Your task to perform on an android device: change the clock display to digital Image 0: 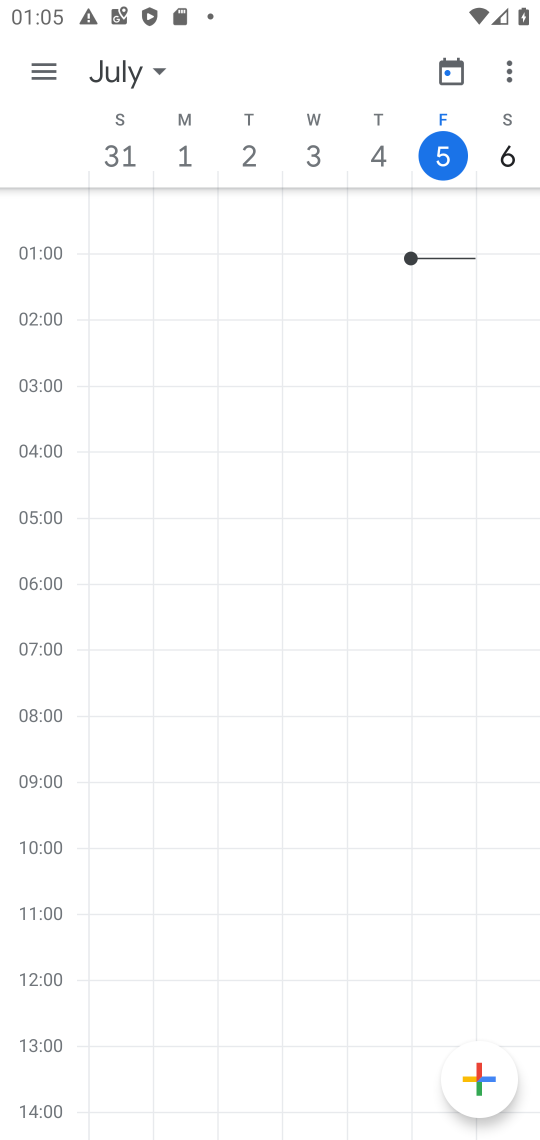
Step 0: press home button
Your task to perform on an android device: change the clock display to digital Image 1: 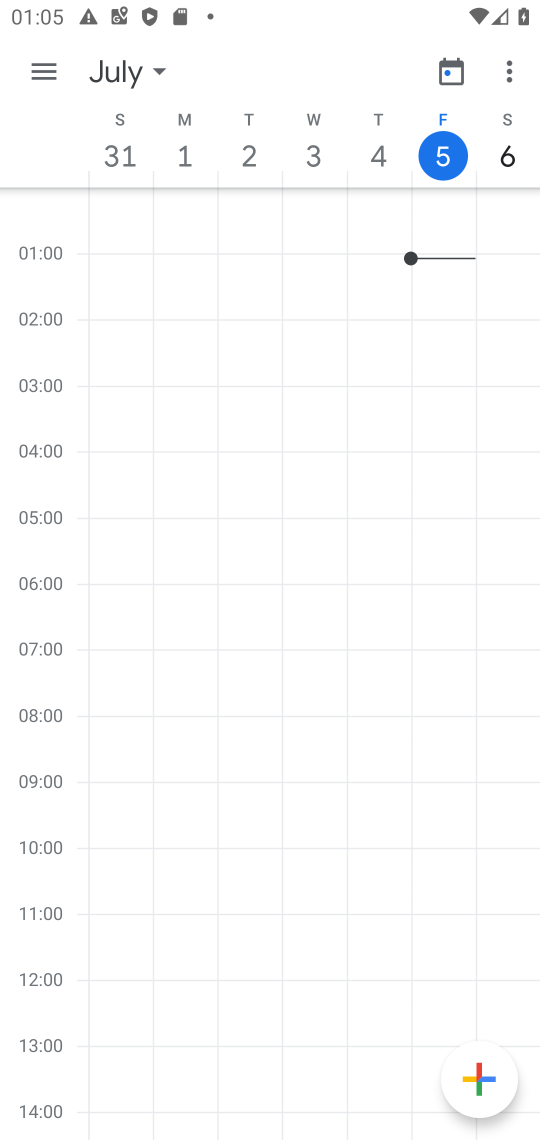
Step 1: press home button
Your task to perform on an android device: change the clock display to digital Image 2: 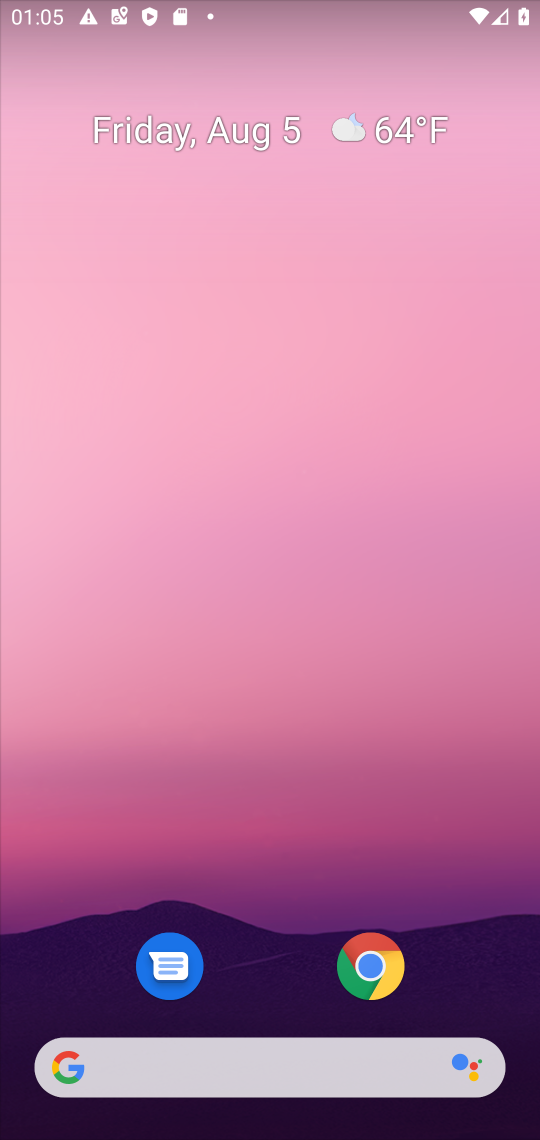
Step 2: drag from (319, 853) to (396, 69)
Your task to perform on an android device: change the clock display to digital Image 3: 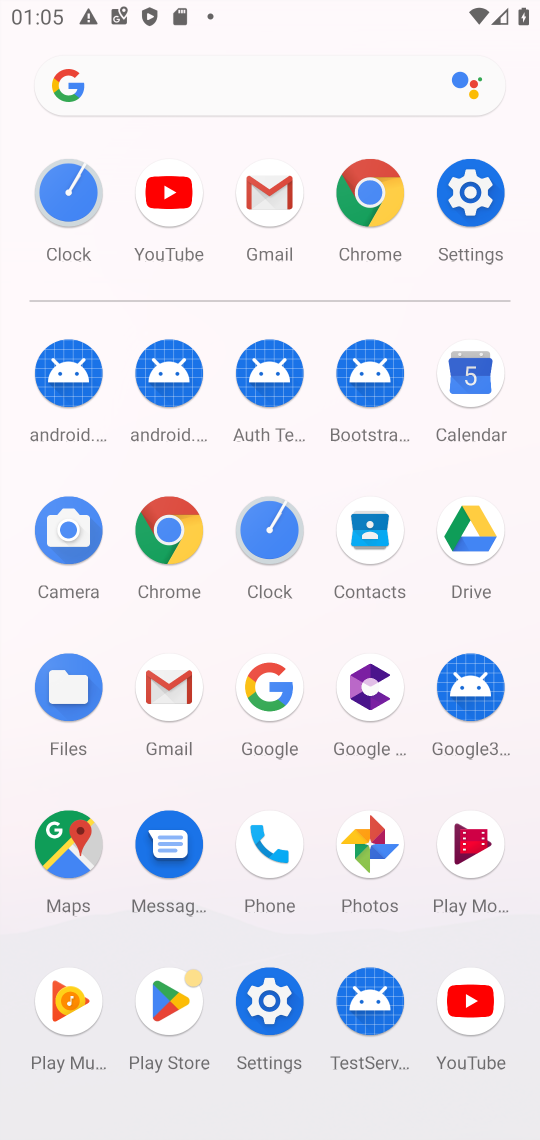
Step 3: click (73, 195)
Your task to perform on an android device: change the clock display to digital Image 4: 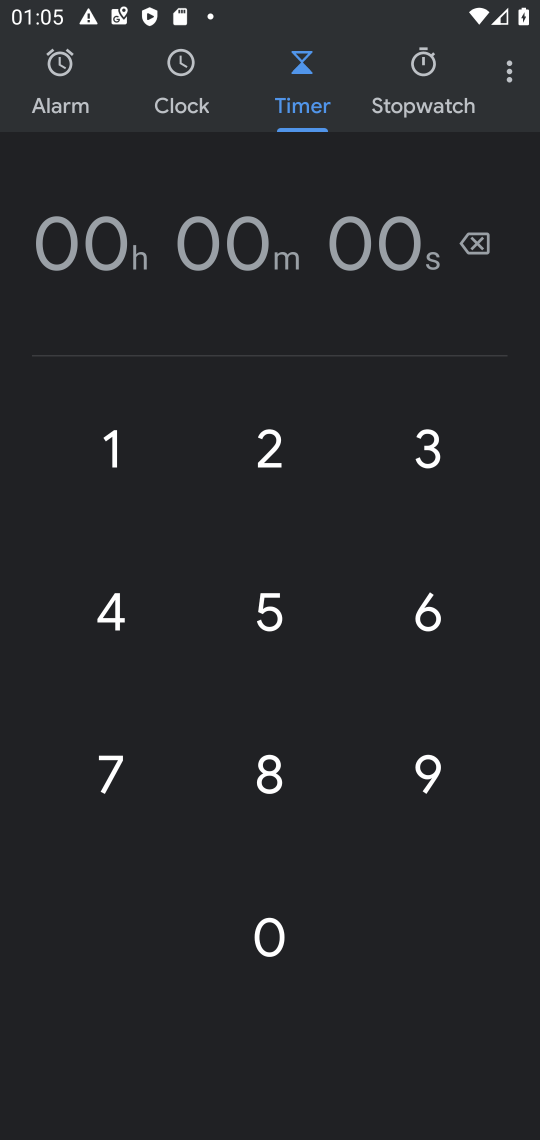
Step 4: click (179, 91)
Your task to perform on an android device: change the clock display to digital Image 5: 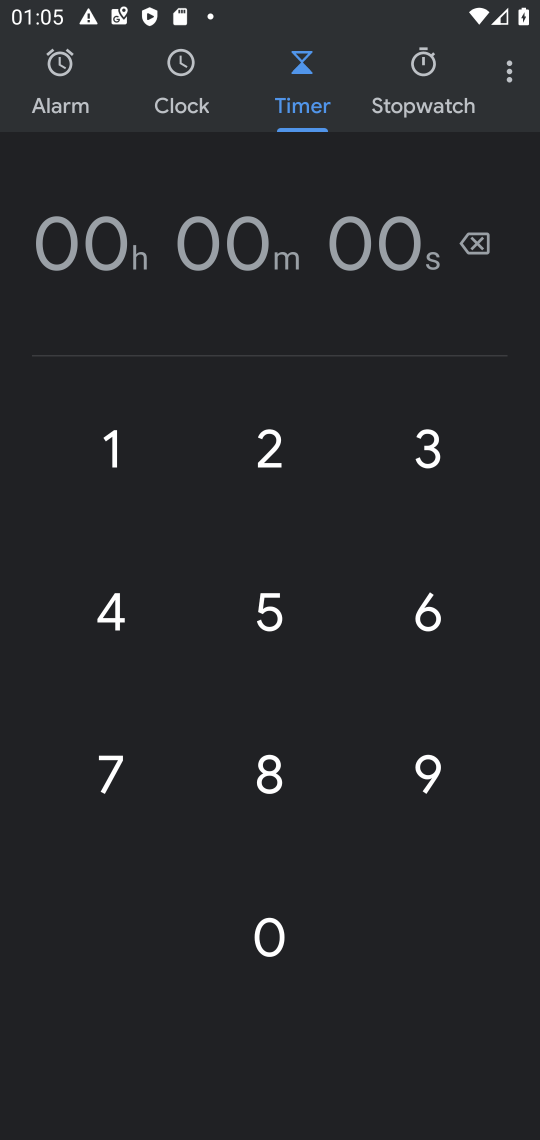
Step 5: click (180, 64)
Your task to perform on an android device: change the clock display to digital Image 6: 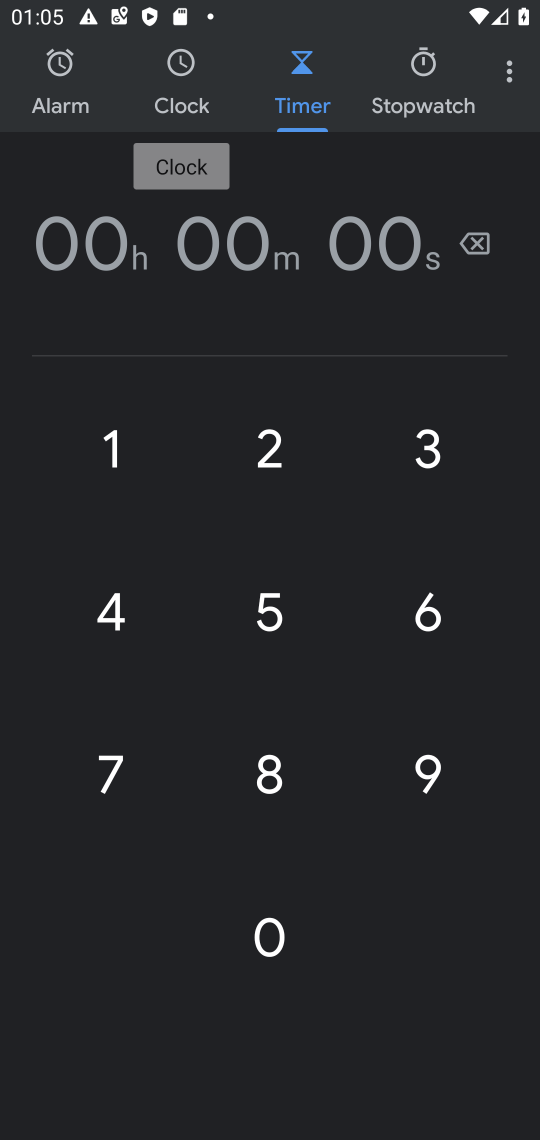
Step 6: click (180, 60)
Your task to perform on an android device: change the clock display to digital Image 7: 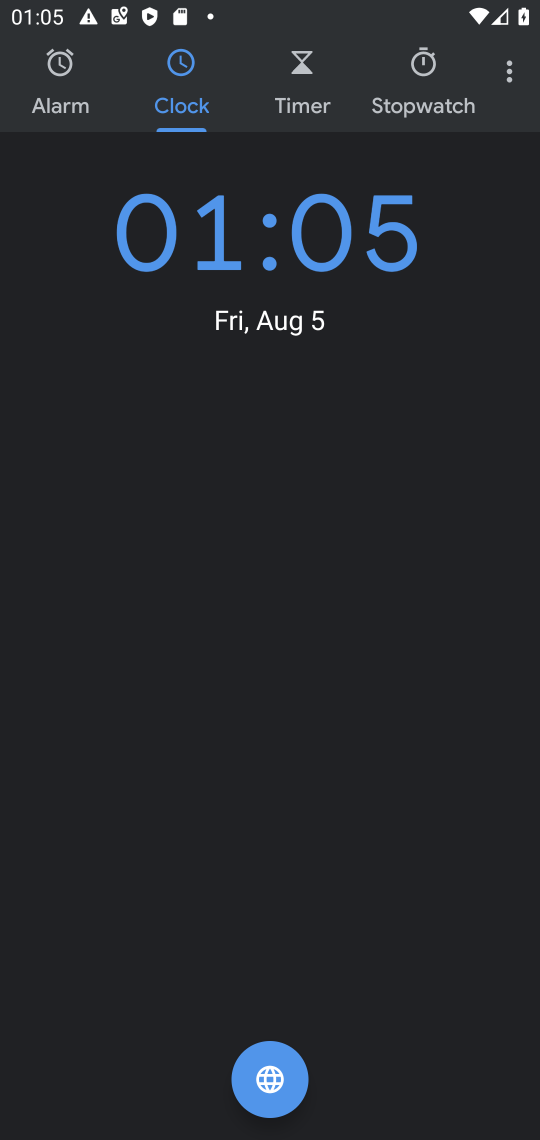
Step 7: click (510, 78)
Your task to perform on an android device: change the clock display to digital Image 8: 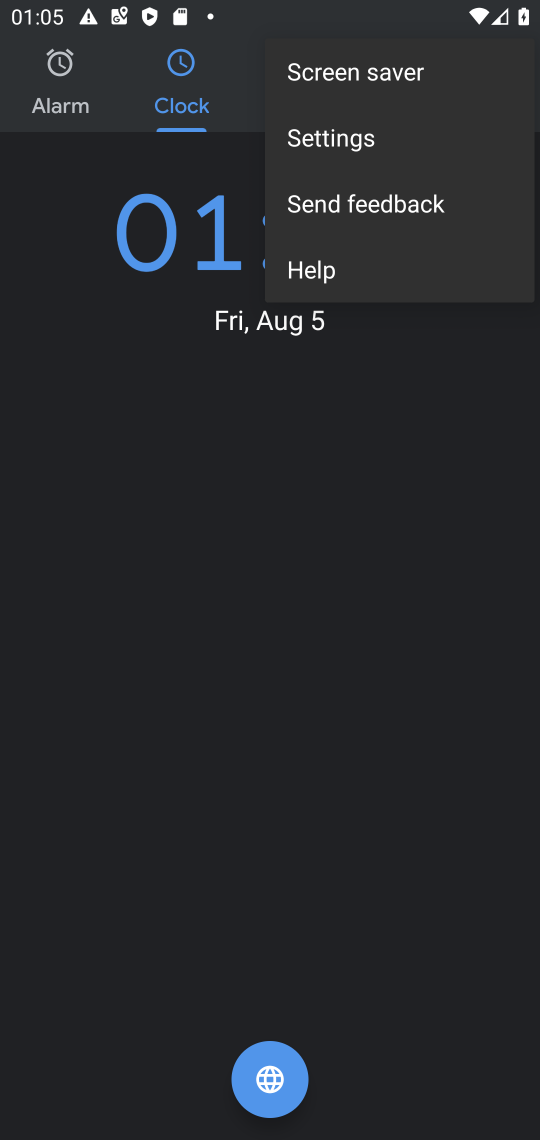
Step 8: click (391, 131)
Your task to perform on an android device: change the clock display to digital Image 9: 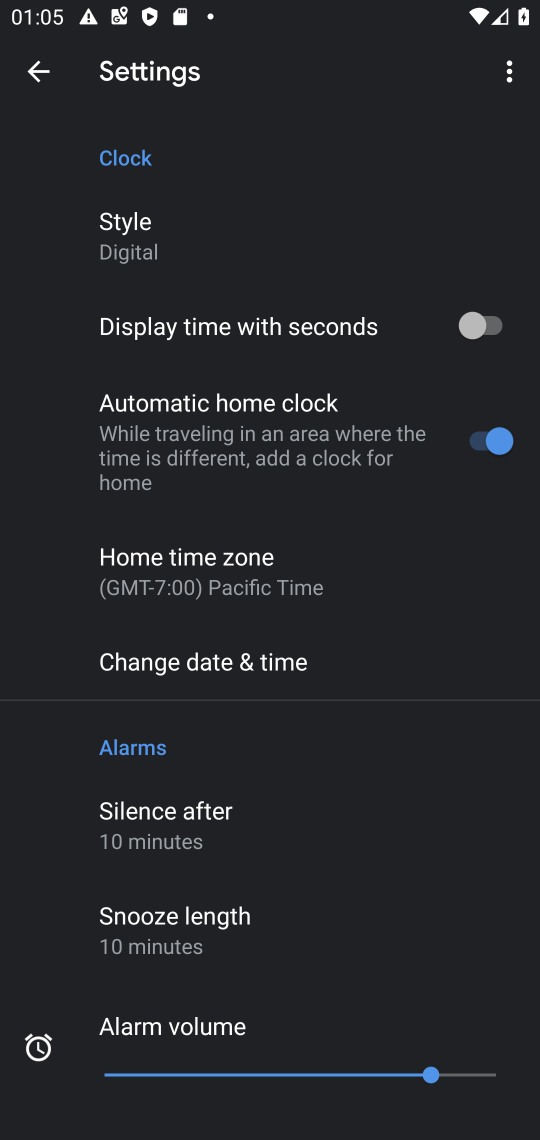
Step 9: click (40, 68)
Your task to perform on an android device: change the clock display to digital Image 10: 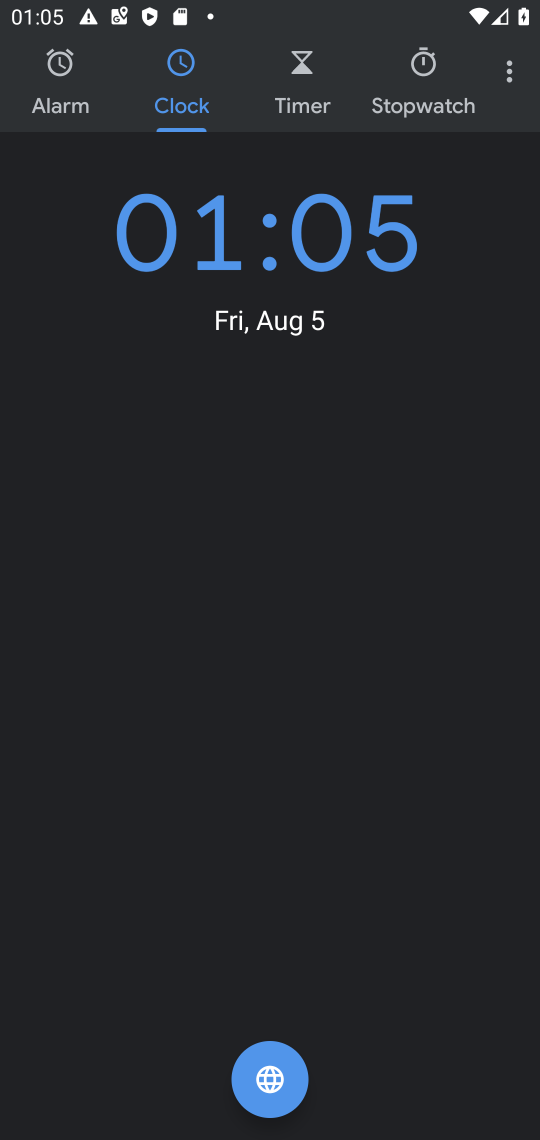
Step 10: task complete